Your task to perform on an android device: turn pop-ups on in chrome Image 0: 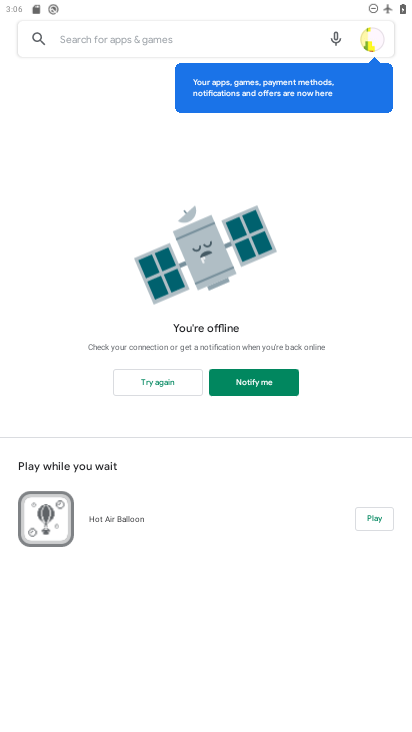
Step 0: press home button
Your task to perform on an android device: turn pop-ups on in chrome Image 1: 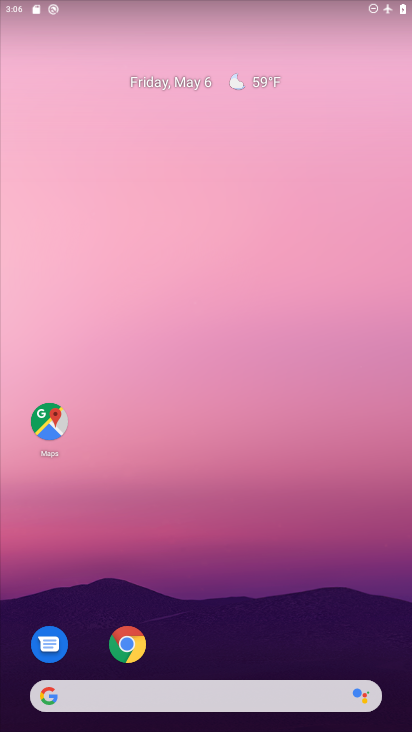
Step 1: click (128, 648)
Your task to perform on an android device: turn pop-ups on in chrome Image 2: 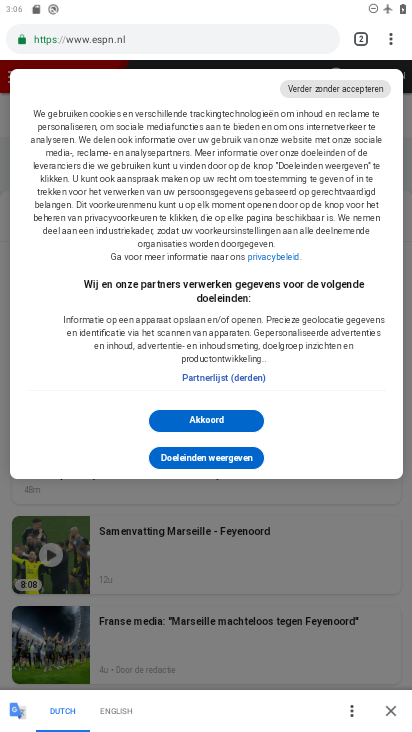
Step 2: drag from (392, 40) to (280, 435)
Your task to perform on an android device: turn pop-ups on in chrome Image 3: 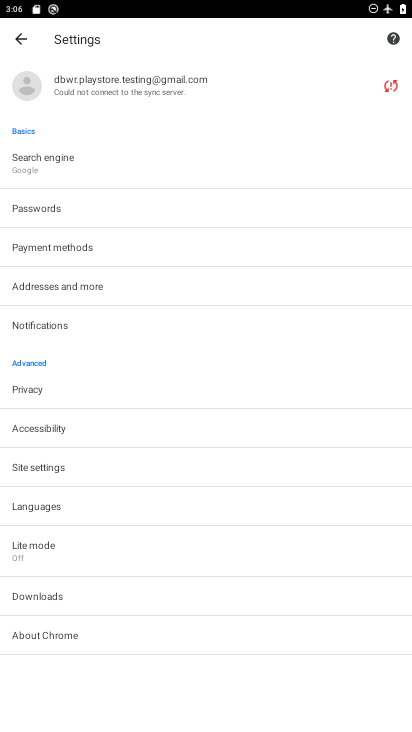
Step 3: click (42, 465)
Your task to perform on an android device: turn pop-ups on in chrome Image 4: 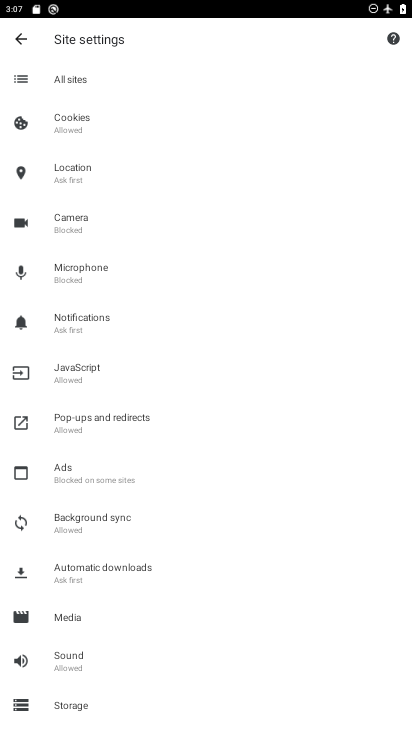
Step 4: click (102, 414)
Your task to perform on an android device: turn pop-ups on in chrome Image 5: 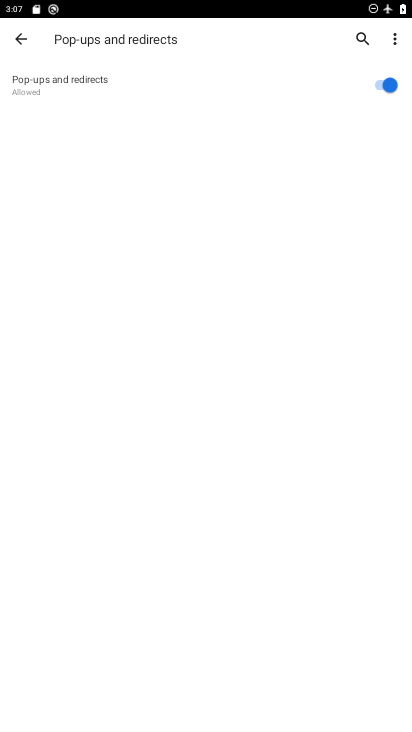
Step 5: task complete